Your task to perform on an android device: Open Reddit.com Image 0: 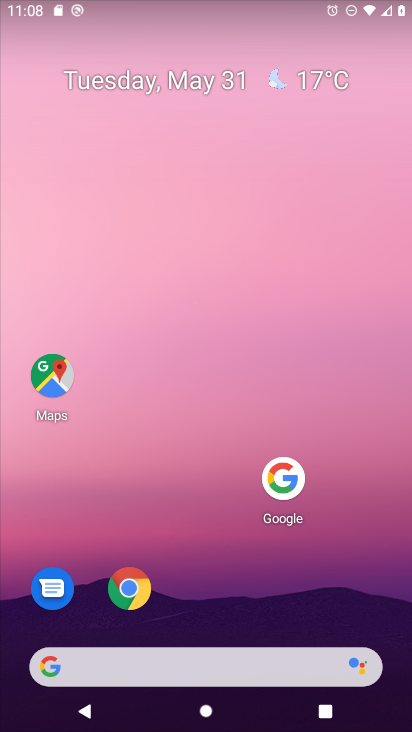
Step 0: click (129, 585)
Your task to perform on an android device: Open Reddit.com Image 1: 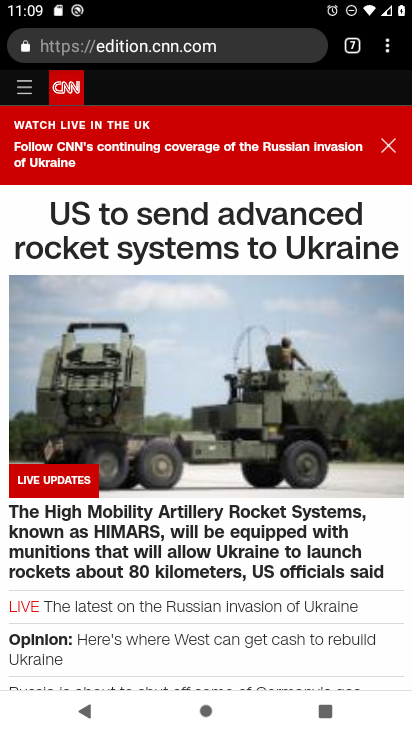
Step 1: drag from (387, 47) to (303, 97)
Your task to perform on an android device: Open Reddit.com Image 2: 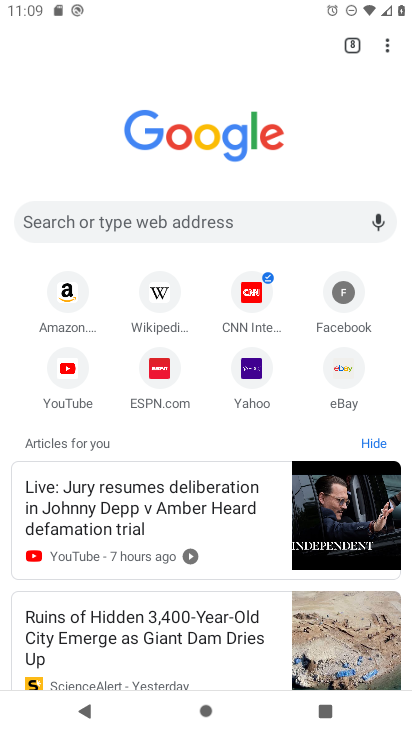
Step 2: click (185, 214)
Your task to perform on an android device: Open Reddit.com Image 3: 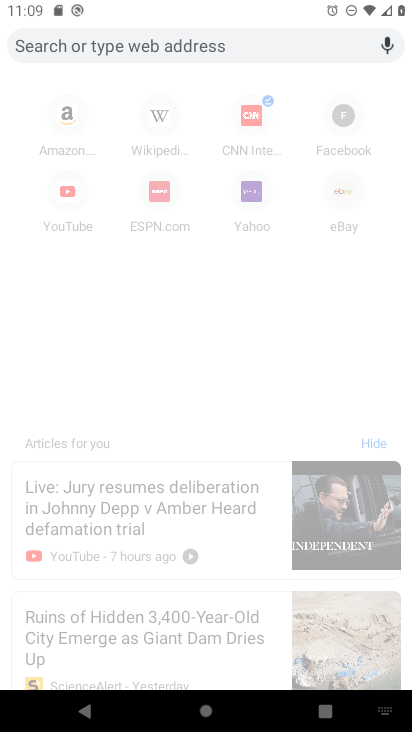
Step 3: type "reddit.com"
Your task to perform on an android device: Open Reddit.com Image 4: 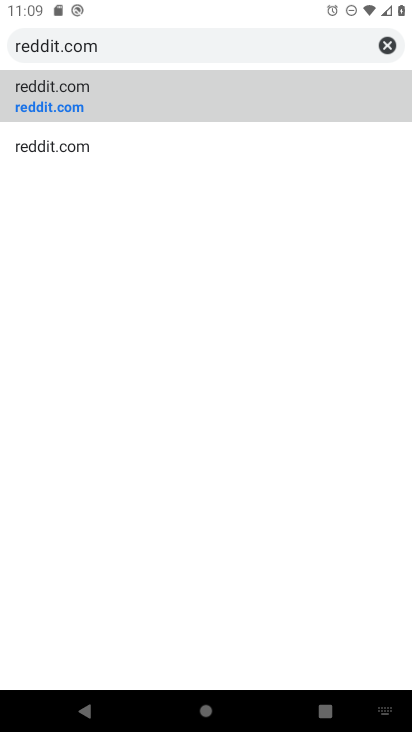
Step 4: click (63, 100)
Your task to perform on an android device: Open Reddit.com Image 5: 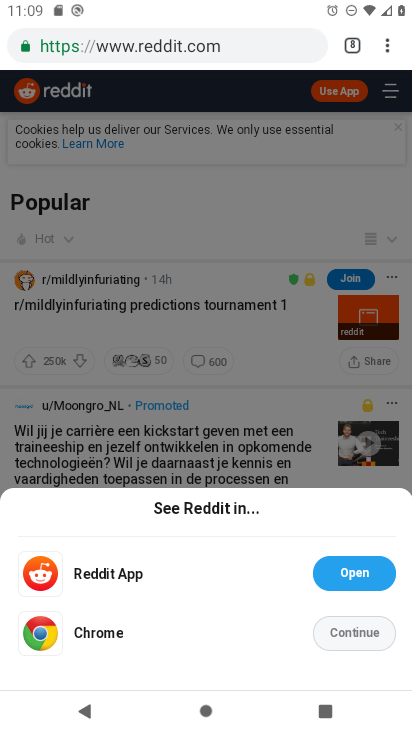
Step 5: task complete